Your task to perform on an android device: make emails show in primary in the gmail app Image 0: 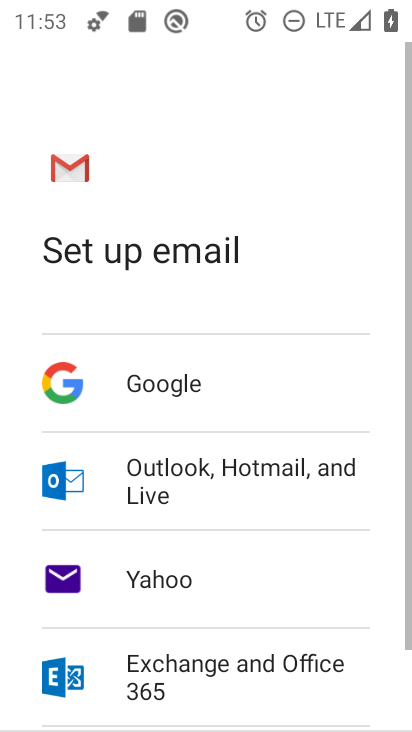
Step 0: press home button
Your task to perform on an android device: make emails show in primary in the gmail app Image 1: 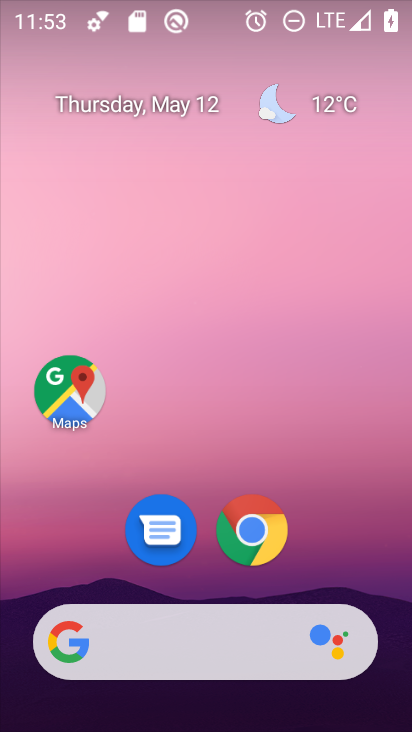
Step 1: drag from (137, 632) to (207, 105)
Your task to perform on an android device: make emails show in primary in the gmail app Image 2: 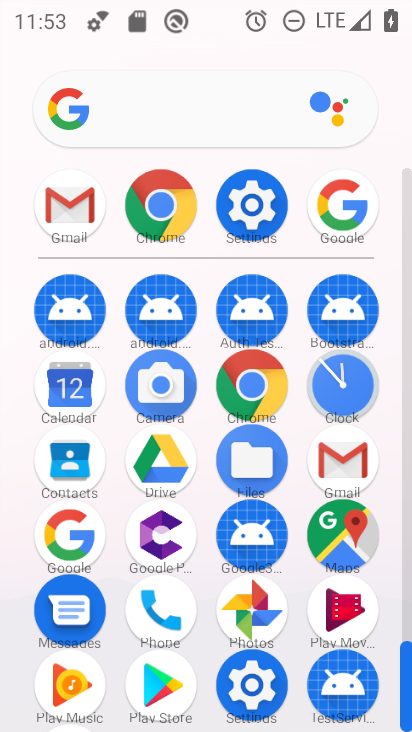
Step 2: click (334, 459)
Your task to perform on an android device: make emails show in primary in the gmail app Image 3: 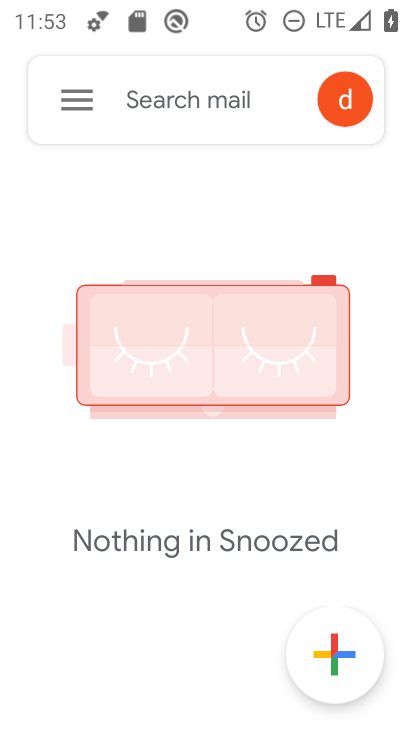
Step 3: click (75, 106)
Your task to perform on an android device: make emails show in primary in the gmail app Image 4: 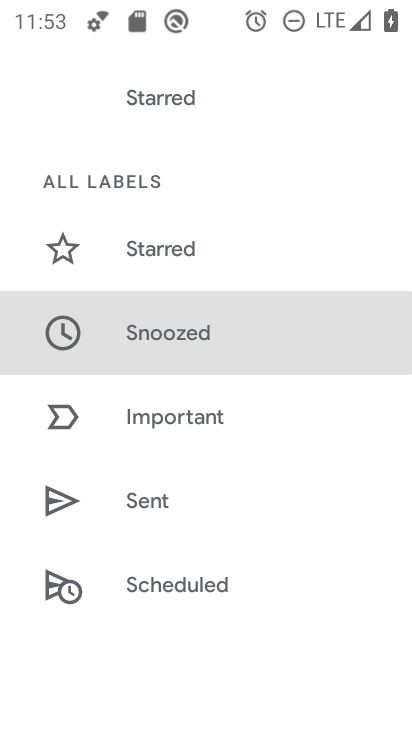
Step 4: drag from (187, 556) to (180, 200)
Your task to perform on an android device: make emails show in primary in the gmail app Image 5: 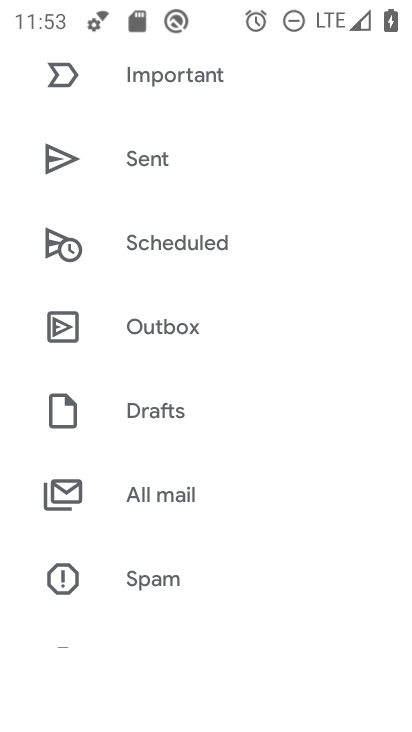
Step 5: drag from (200, 628) to (242, 222)
Your task to perform on an android device: make emails show in primary in the gmail app Image 6: 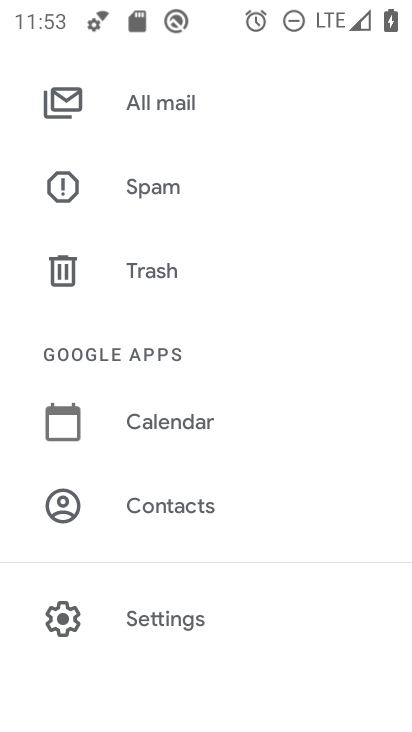
Step 6: click (178, 632)
Your task to perform on an android device: make emails show in primary in the gmail app Image 7: 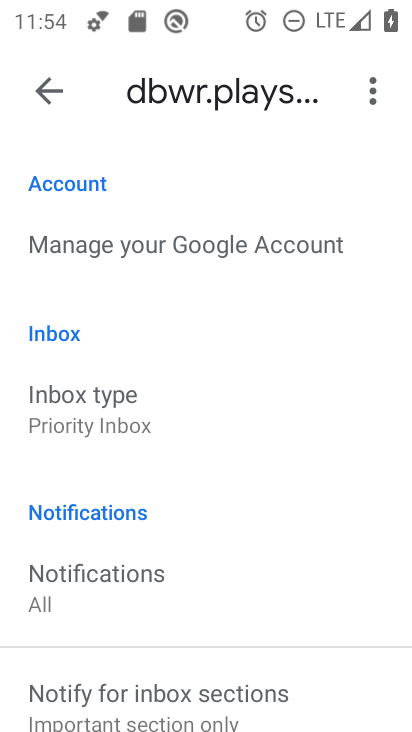
Step 7: task complete